Your task to perform on an android device: turn notification dots off Image 0: 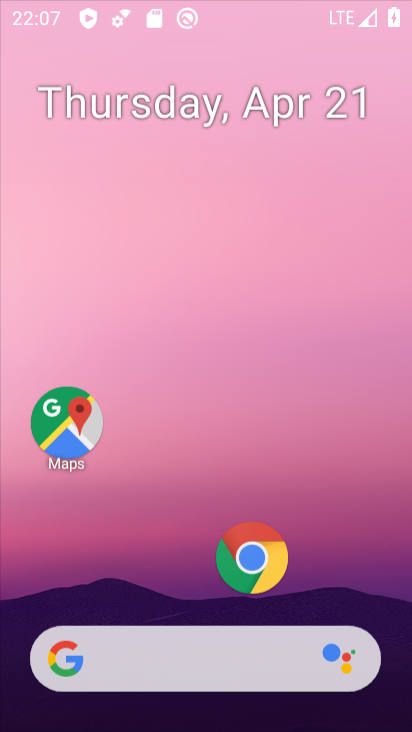
Step 0: click (138, 171)
Your task to perform on an android device: turn notification dots off Image 1: 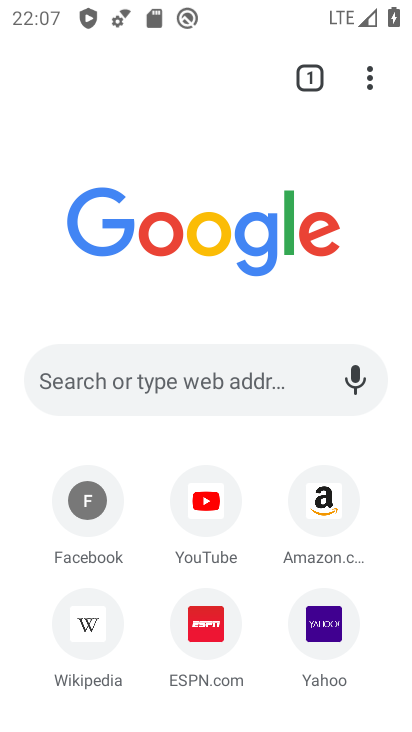
Step 1: press home button
Your task to perform on an android device: turn notification dots off Image 2: 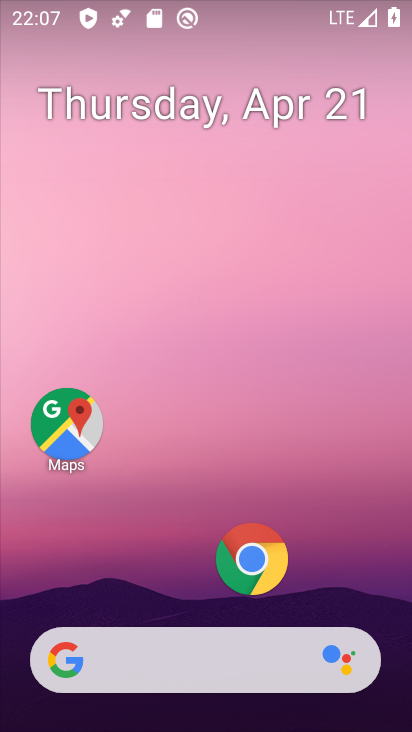
Step 2: drag from (147, 437) to (180, 183)
Your task to perform on an android device: turn notification dots off Image 3: 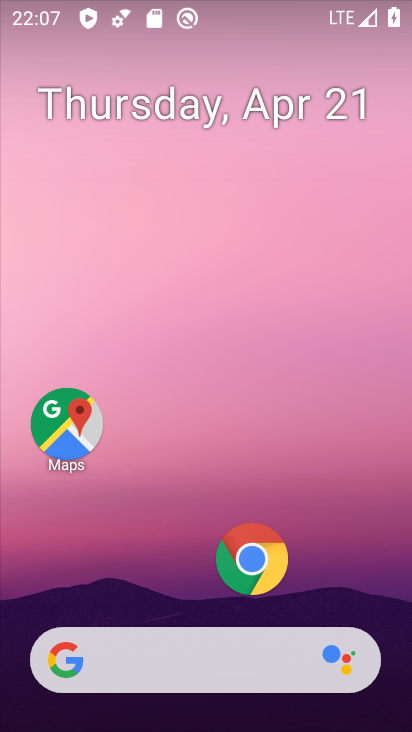
Step 3: drag from (112, 607) to (128, 74)
Your task to perform on an android device: turn notification dots off Image 4: 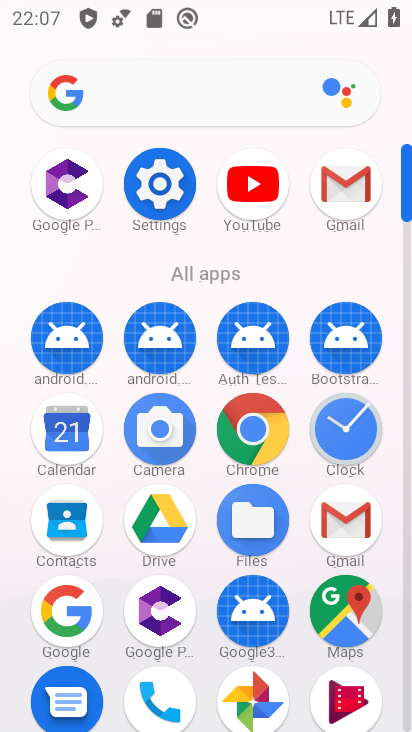
Step 4: click (162, 177)
Your task to perform on an android device: turn notification dots off Image 5: 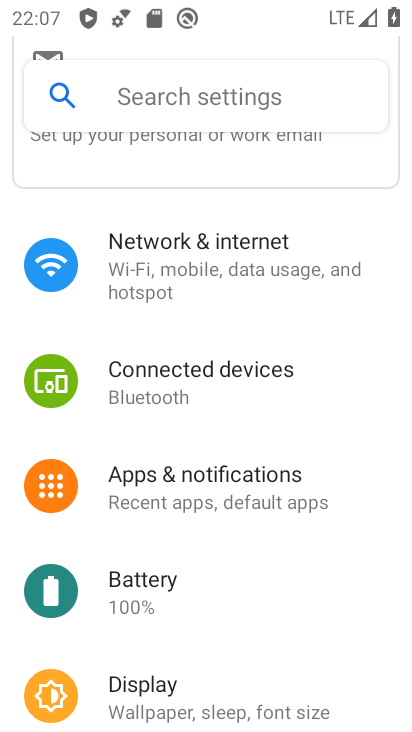
Step 5: drag from (243, 611) to (241, 495)
Your task to perform on an android device: turn notification dots off Image 6: 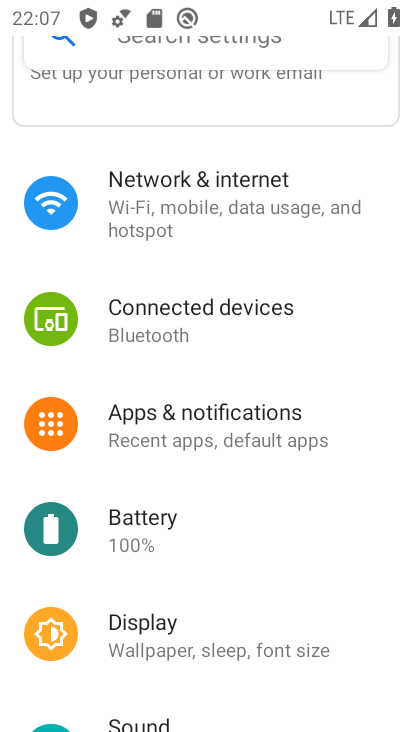
Step 6: click (210, 425)
Your task to perform on an android device: turn notification dots off Image 7: 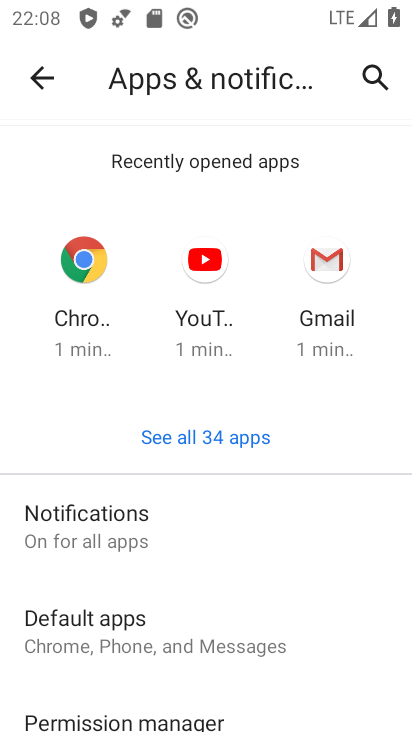
Step 7: click (108, 527)
Your task to perform on an android device: turn notification dots off Image 8: 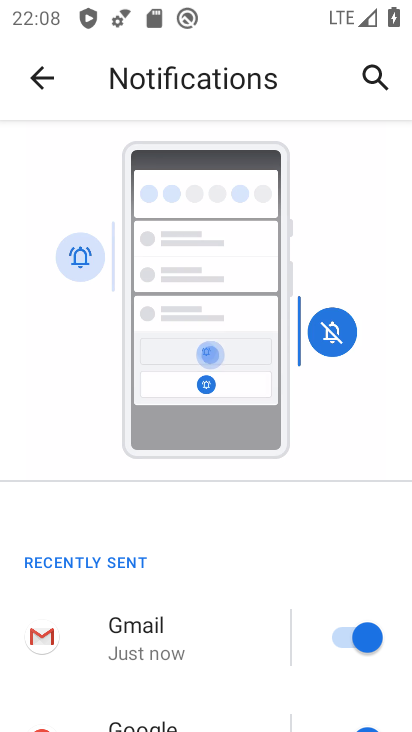
Step 8: drag from (200, 677) to (261, 373)
Your task to perform on an android device: turn notification dots off Image 9: 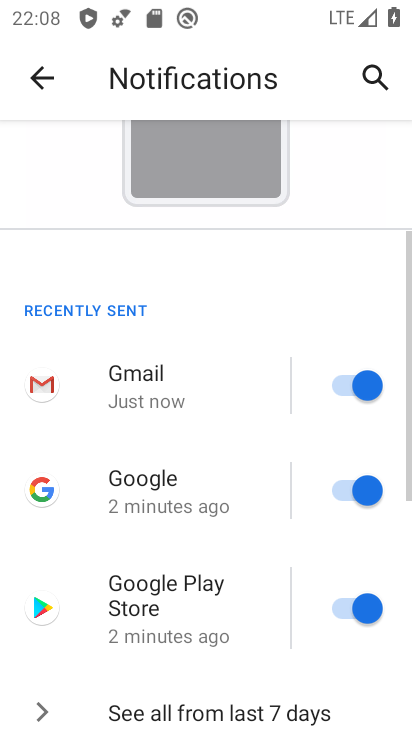
Step 9: drag from (174, 648) to (267, 326)
Your task to perform on an android device: turn notification dots off Image 10: 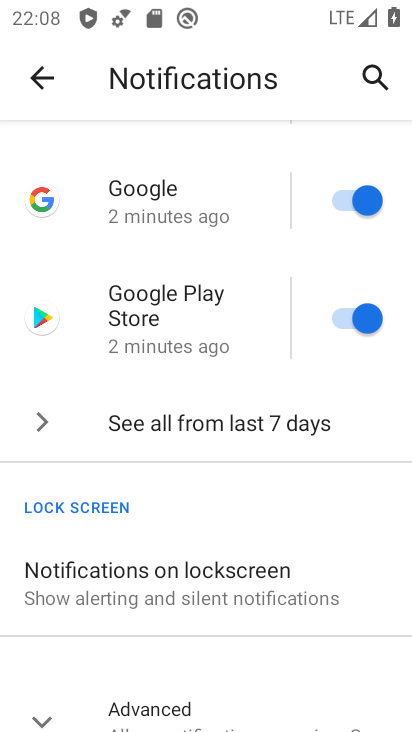
Step 10: drag from (159, 621) to (243, 339)
Your task to perform on an android device: turn notification dots off Image 11: 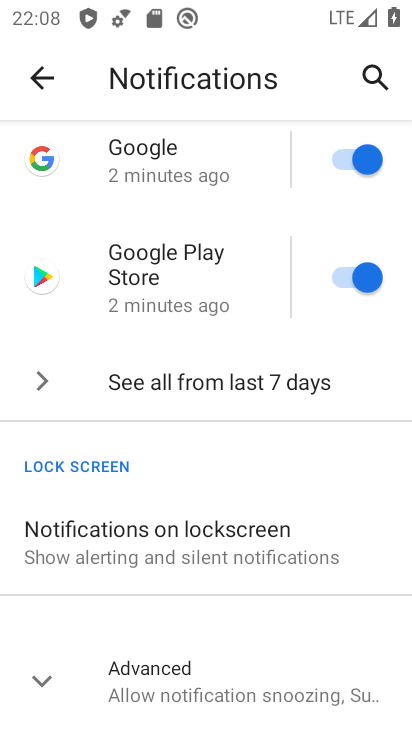
Step 11: click (51, 677)
Your task to perform on an android device: turn notification dots off Image 12: 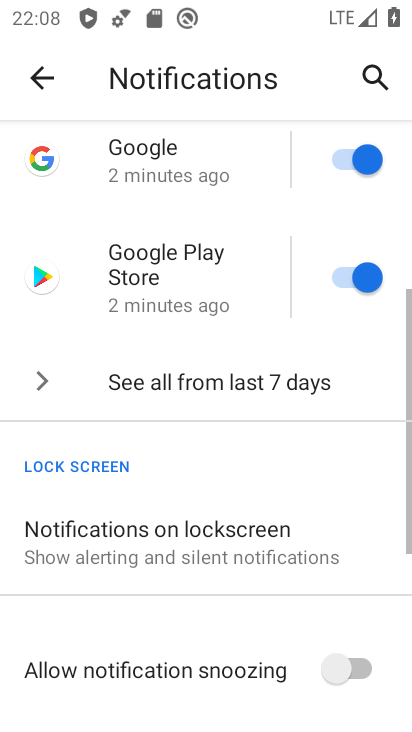
Step 12: drag from (147, 617) to (231, 310)
Your task to perform on an android device: turn notification dots off Image 13: 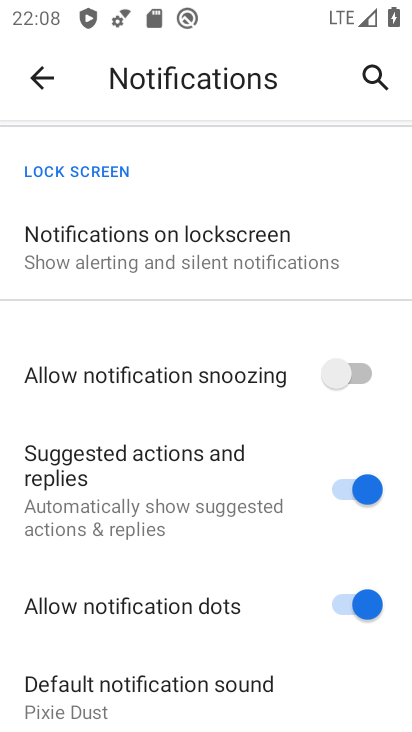
Step 13: click (341, 607)
Your task to perform on an android device: turn notification dots off Image 14: 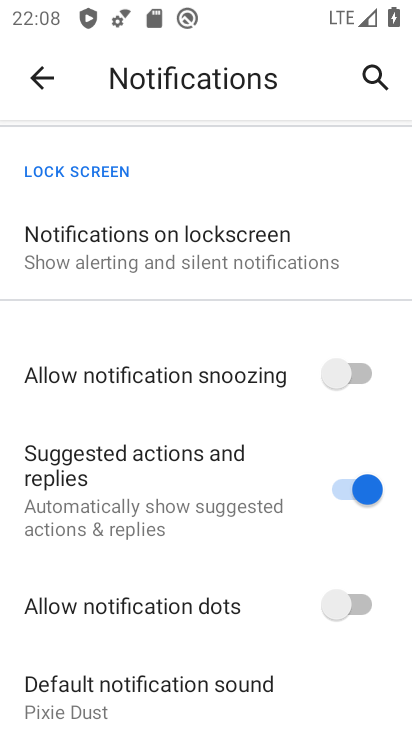
Step 14: task complete